Your task to perform on an android device: turn off sleep mode Image 0: 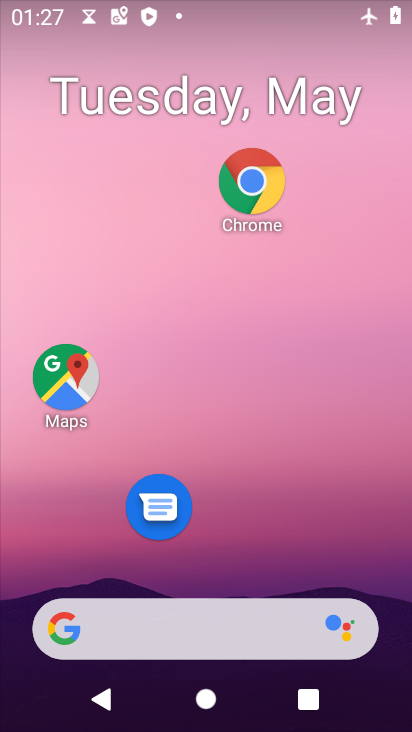
Step 0: drag from (236, 548) to (242, 323)
Your task to perform on an android device: turn off sleep mode Image 1: 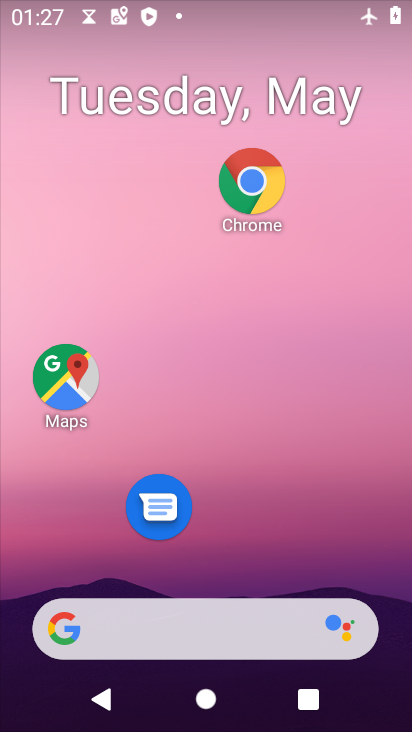
Step 1: drag from (245, 527) to (287, 244)
Your task to perform on an android device: turn off sleep mode Image 2: 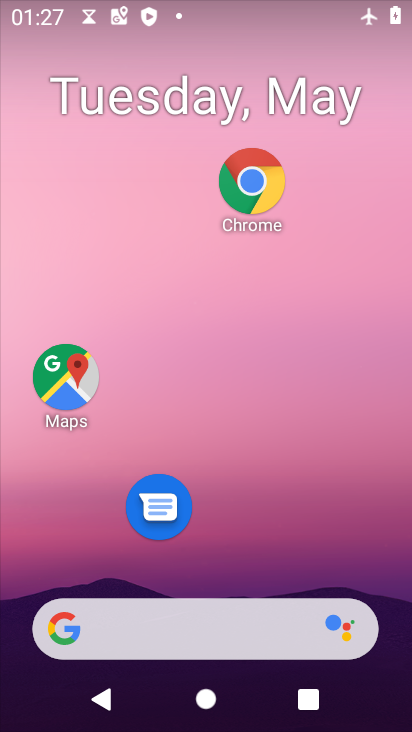
Step 2: drag from (349, 366) to (360, 191)
Your task to perform on an android device: turn off sleep mode Image 3: 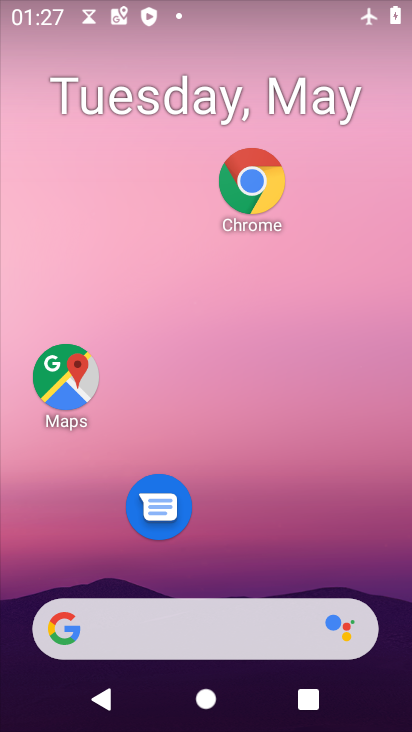
Step 3: drag from (282, 533) to (332, 160)
Your task to perform on an android device: turn off sleep mode Image 4: 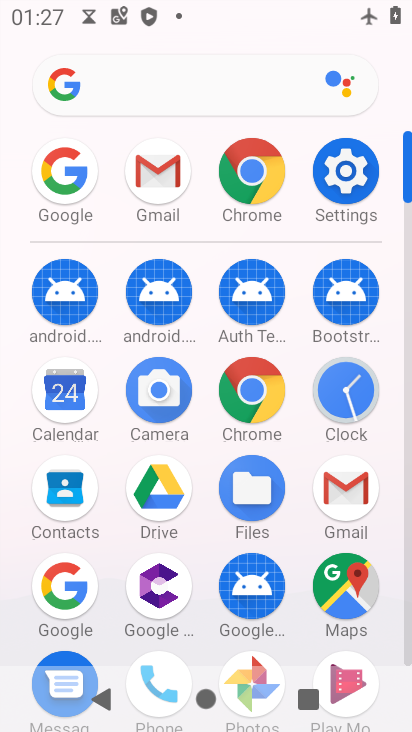
Step 4: click (341, 179)
Your task to perform on an android device: turn off sleep mode Image 5: 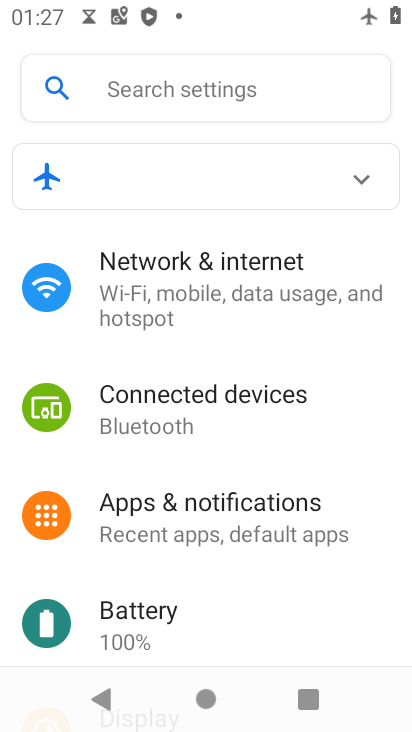
Step 5: task complete